Your task to perform on an android device: Show me the alarms in the clock app Image 0: 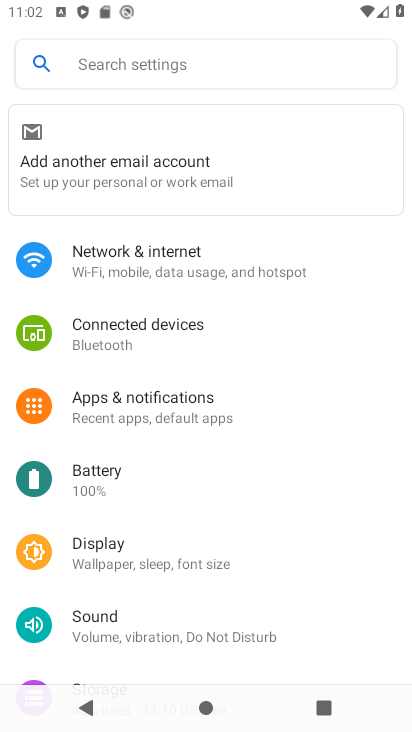
Step 0: press home button
Your task to perform on an android device: Show me the alarms in the clock app Image 1: 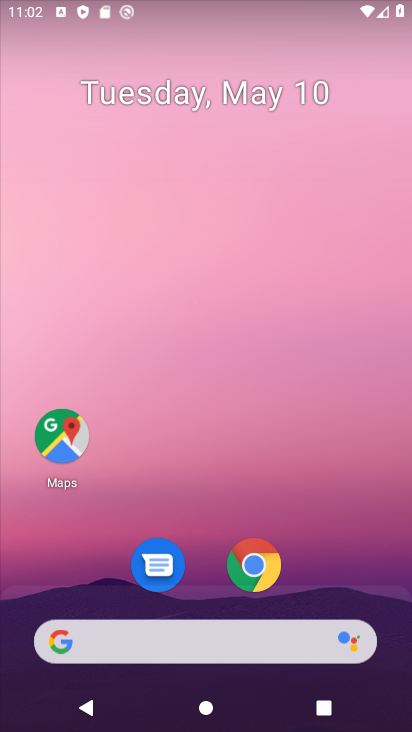
Step 1: drag from (3, 670) to (233, 180)
Your task to perform on an android device: Show me the alarms in the clock app Image 2: 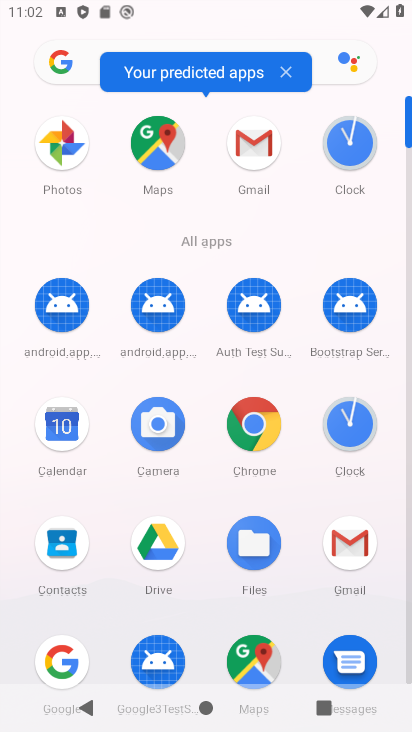
Step 2: click (348, 424)
Your task to perform on an android device: Show me the alarms in the clock app Image 3: 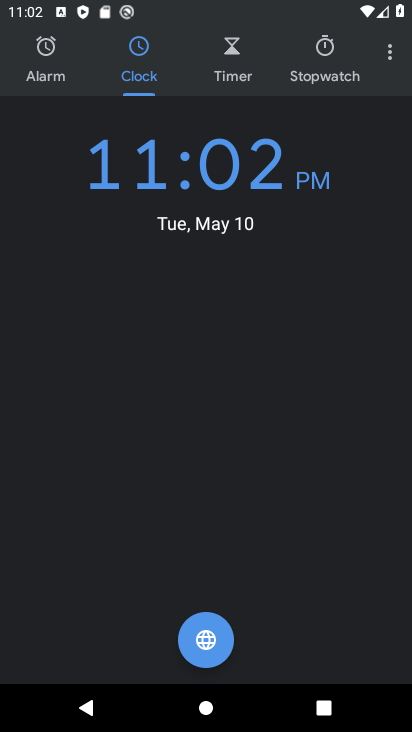
Step 3: click (42, 63)
Your task to perform on an android device: Show me the alarms in the clock app Image 4: 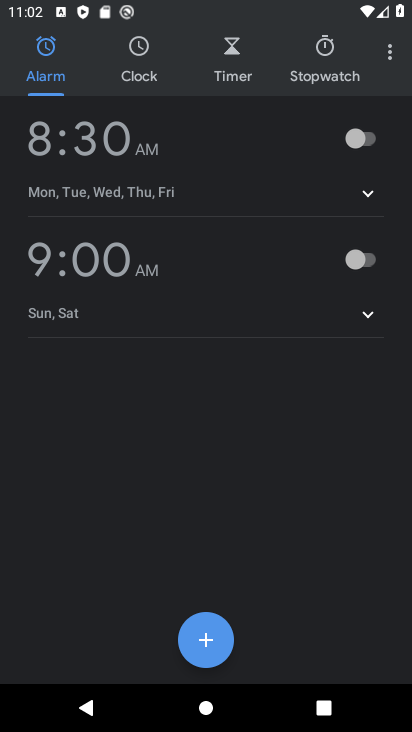
Step 4: task complete